Your task to perform on an android device: Open accessibility settings Image 0: 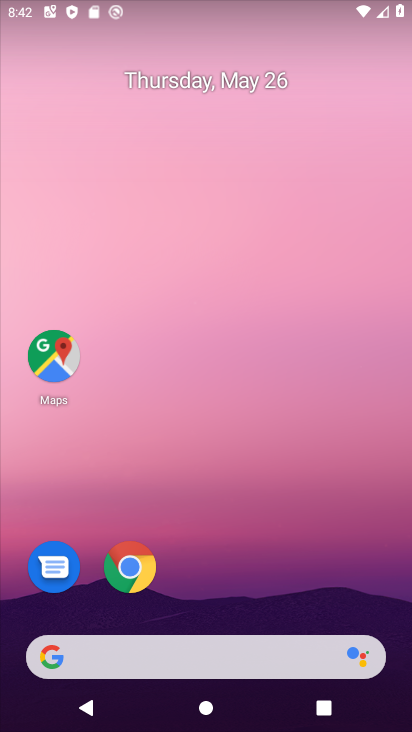
Step 0: drag from (168, 651) to (302, 73)
Your task to perform on an android device: Open accessibility settings Image 1: 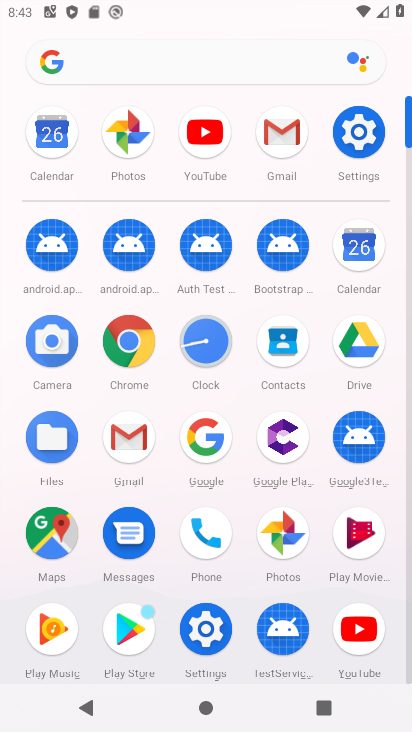
Step 1: click (361, 126)
Your task to perform on an android device: Open accessibility settings Image 2: 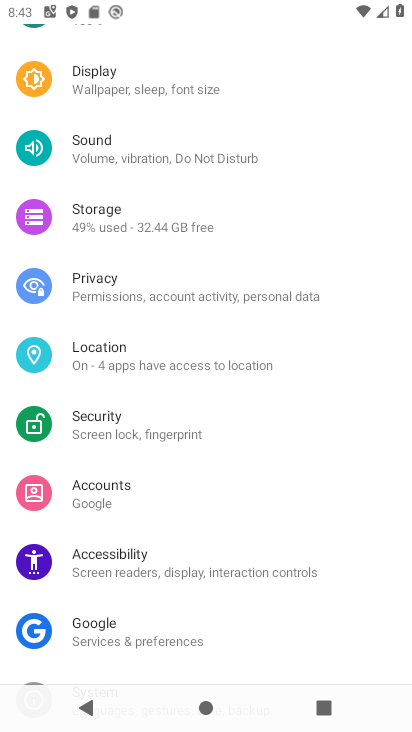
Step 2: click (129, 562)
Your task to perform on an android device: Open accessibility settings Image 3: 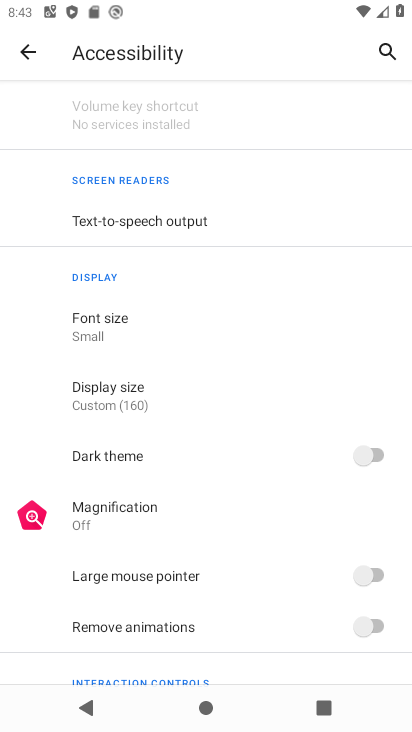
Step 3: task complete